Your task to perform on an android device: set an alarm Image 0: 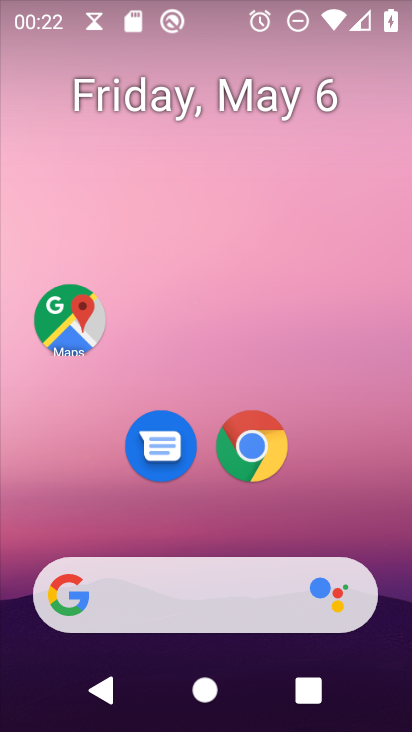
Step 0: drag from (279, 657) to (223, 298)
Your task to perform on an android device: set an alarm Image 1: 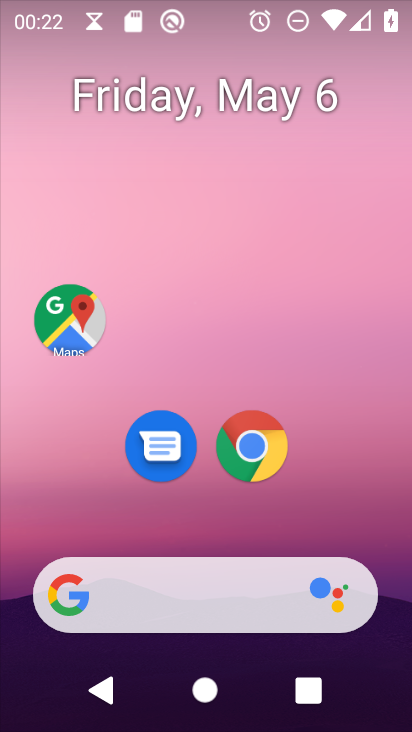
Step 1: drag from (207, 652) to (227, 309)
Your task to perform on an android device: set an alarm Image 2: 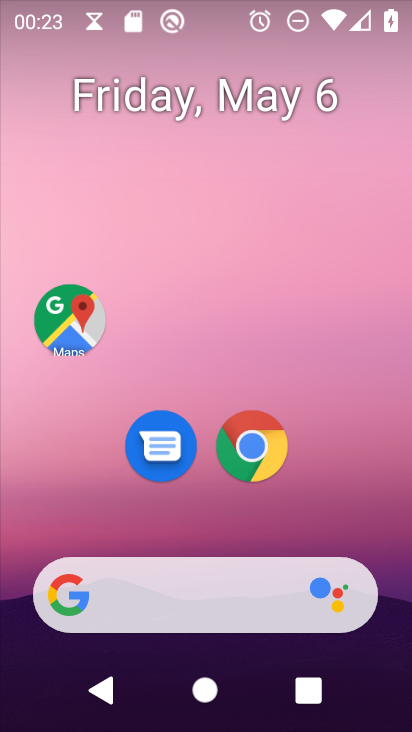
Step 2: drag from (301, 646) to (336, 155)
Your task to perform on an android device: set an alarm Image 3: 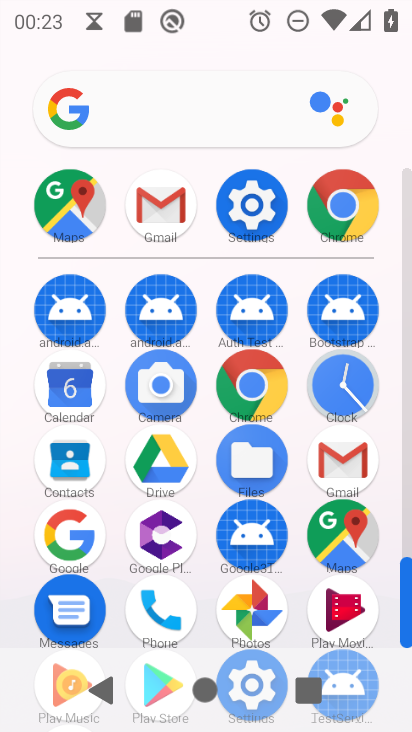
Step 3: click (347, 396)
Your task to perform on an android device: set an alarm Image 4: 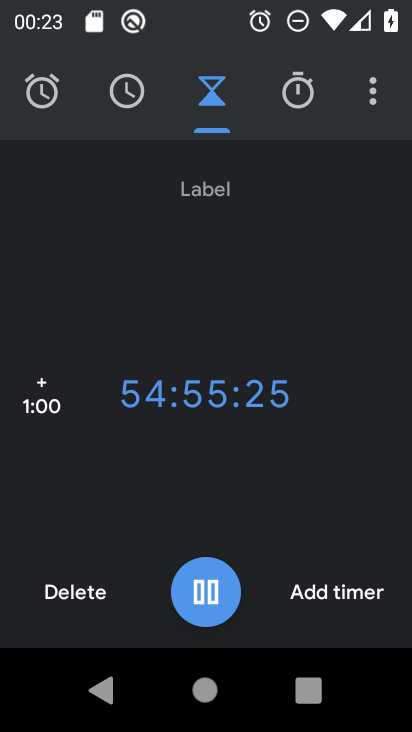
Step 4: click (51, 93)
Your task to perform on an android device: set an alarm Image 5: 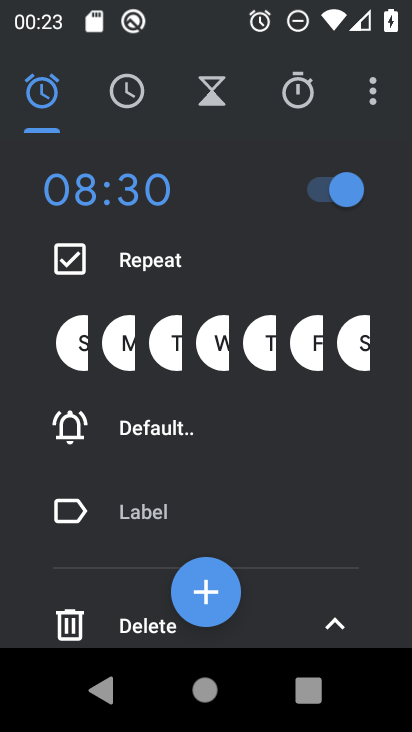
Step 5: task complete